Your task to perform on an android device: Search for a 24-inch cordless drill. Image 0: 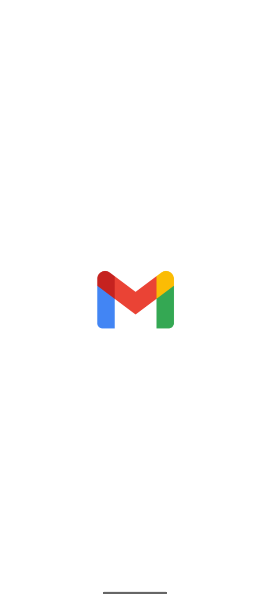
Step 0: press home button
Your task to perform on an android device: Search for a 24-inch cordless drill. Image 1: 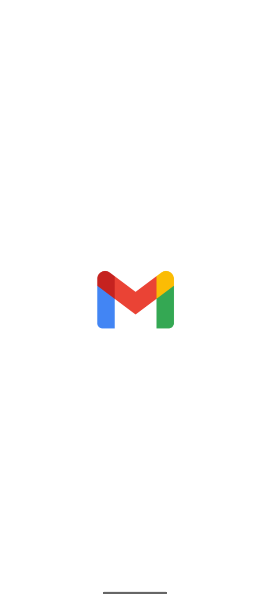
Step 1: press back button
Your task to perform on an android device: Search for a 24-inch cordless drill. Image 2: 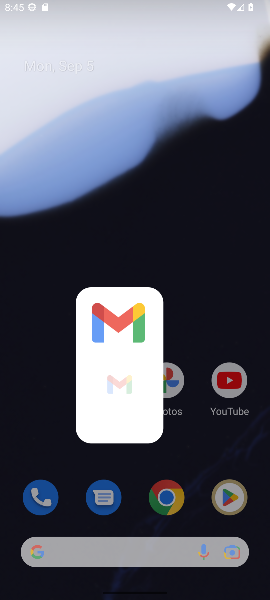
Step 2: press back button
Your task to perform on an android device: Search for a 24-inch cordless drill. Image 3: 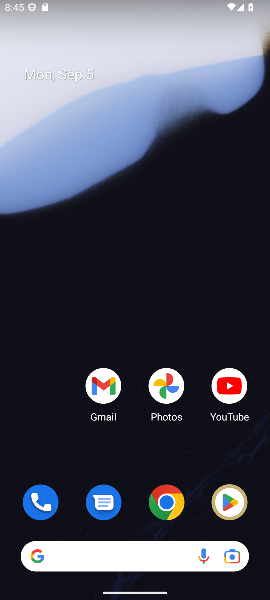
Step 3: drag from (204, 508) to (112, 52)
Your task to perform on an android device: Search for a 24-inch cordless drill. Image 4: 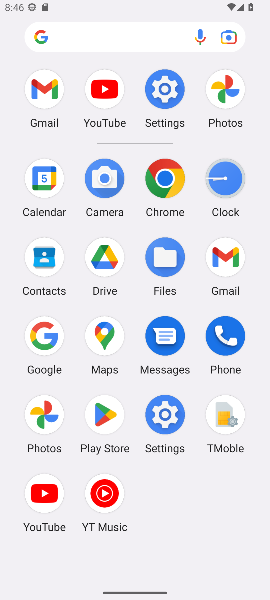
Step 4: click (46, 345)
Your task to perform on an android device: Search for a 24-inch cordless drill. Image 5: 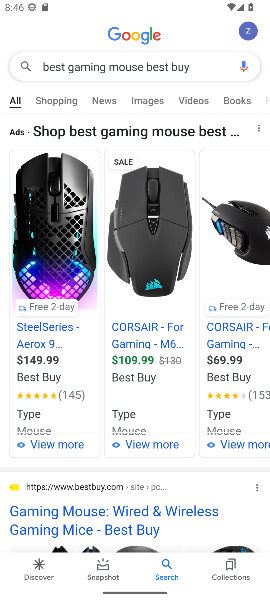
Step 5: press back button
Your task to perform on an android device: Search for a 24-inch cordless drill. Image 6: 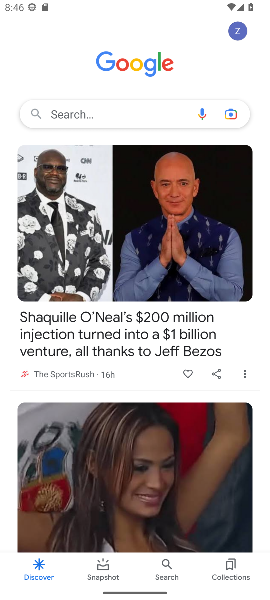
Step 6: click (91, 114)
Your task to perform on an android device: Search for a 24-inch cordless drill. Image 7: 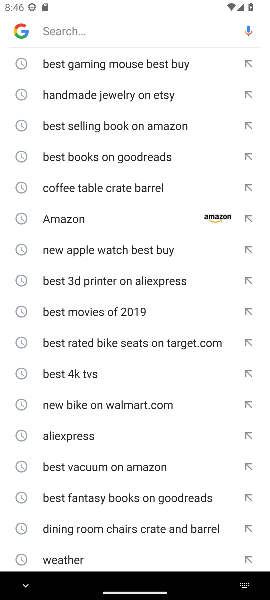
Step 7: type "24-inch cordless drill"
Your task to perform on an android device: Search for a 24-inch cordless drill. Image 8: 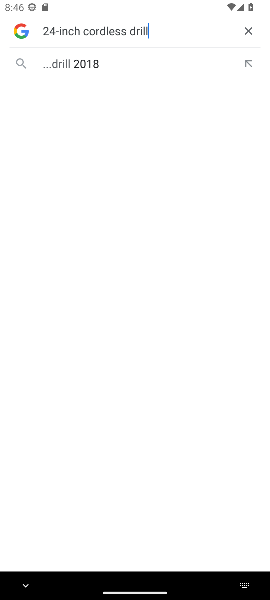
Step 8: click (83, 72)
Your task to perform on an android device: Search for a 24-inch cordless drill. Image 9: 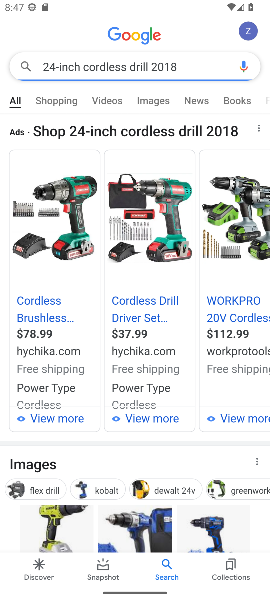
Step 9: task complete